Your task to perform on an android device: Go to network settings Image 0: 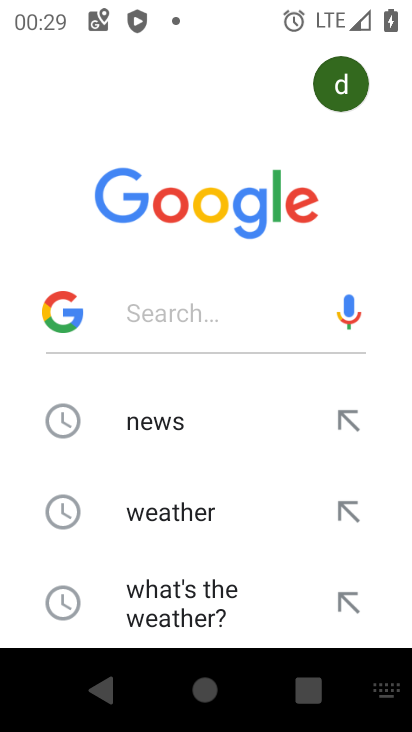
Step 0: press home button
Your task to perform on an android device: Go to network settings Image 1: 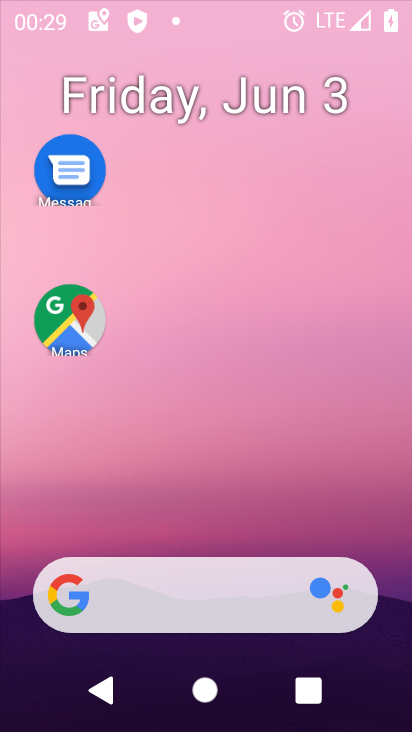
Step 1: drag from (286, 532) to (277, 1)
Your task to perform on an android device: Go to network settings Image 2: 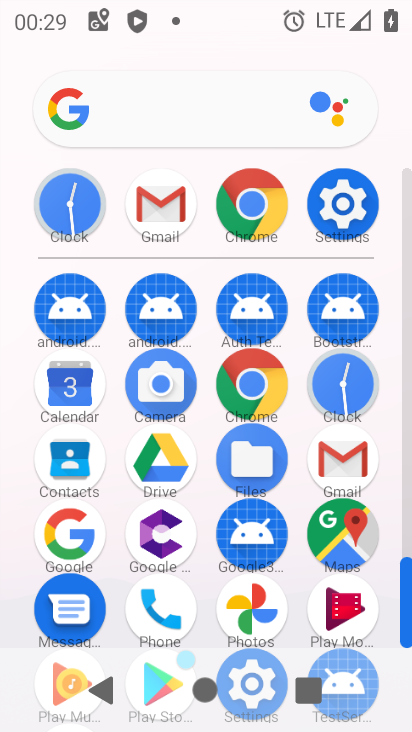
Step 2: click (336, 199)
Your task to perform on an android device: Go to network settings Image 3: 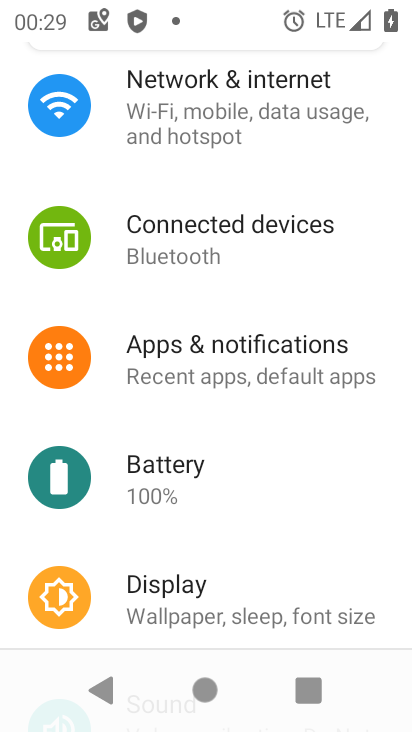
Step 3: drag from (227, 246) to (219, 397)
Your task to perform on an android device: Go to network settings Image 4: 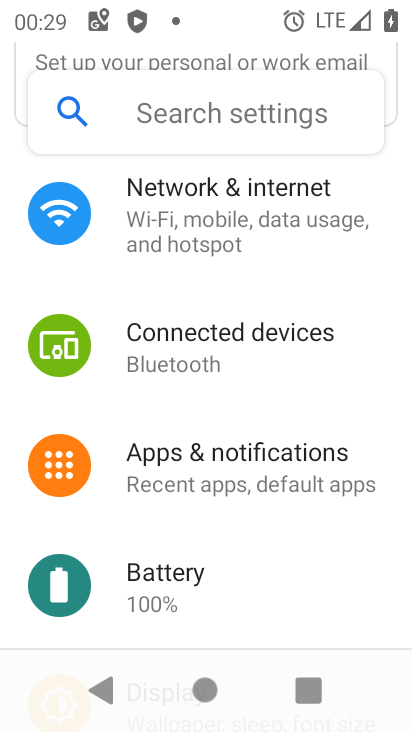
Step 4: click (173, 266)
Your task to perform on an android device: Go to network settings Image 5: 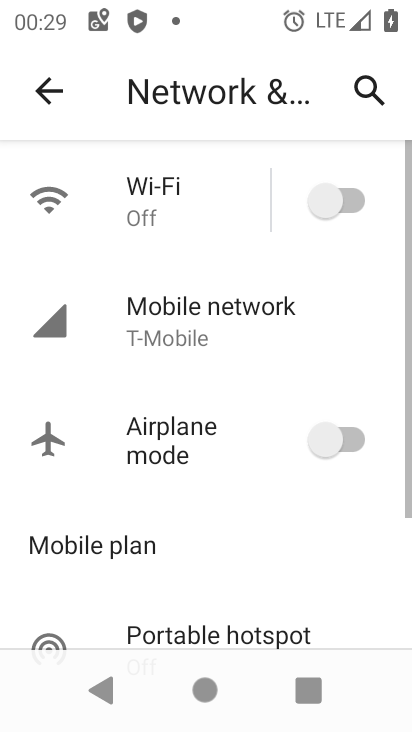
Step 5: task complete